Your task to perform on an android device: Install the Pandora app Image 0: 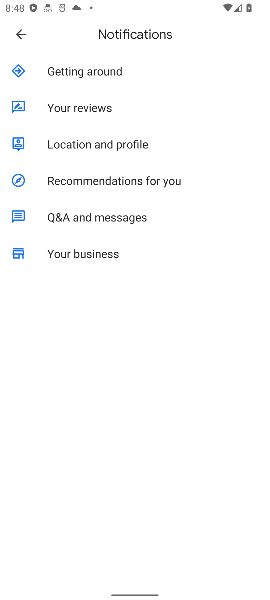
Step 0: press home button
Your task to perform on an android device: Install the Pandora app Image 1: 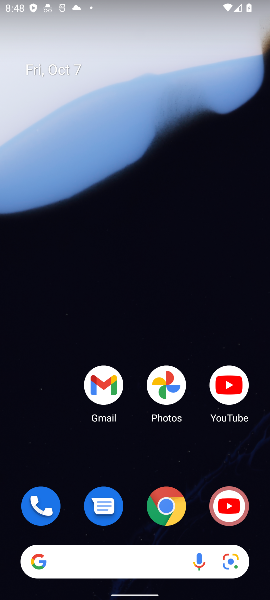
Step 1: drag from (137, 558) to (219, 58)
Your task to perform on an android device: Install the Pandora app Image 2: 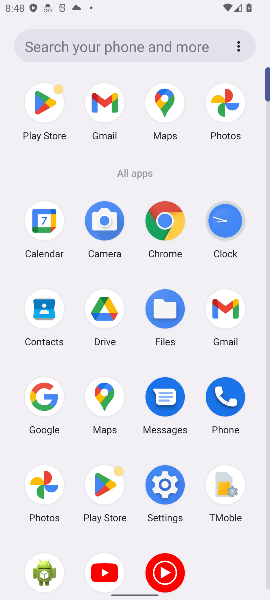
Step 2: click (42, 108)
Your task to perform on an android device: Install the Pandora app Image 3: 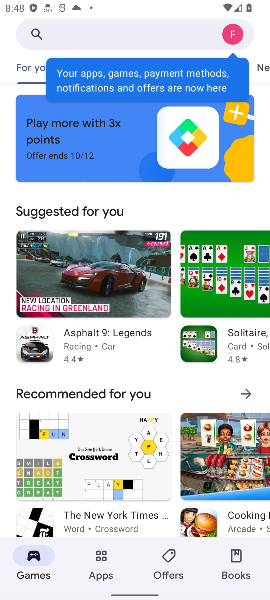
Step 3: click (133, 42)
Your task to perform on an android device: Install the Pandora app Image 4: 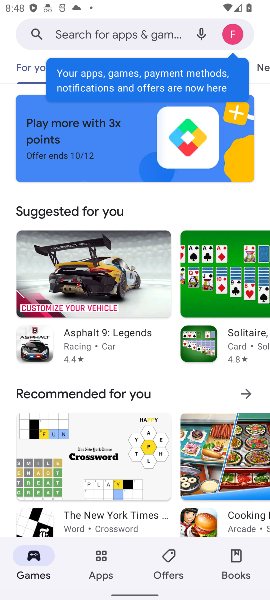
Step 4: click (133, 34)
Your task to perform on an android device: Install the Pandora app Image 5: 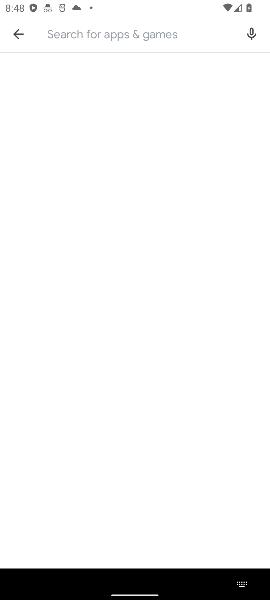
Step 5: type "Pandora app"
Your task to perform on an android device: Install the Pandora app Image 6: 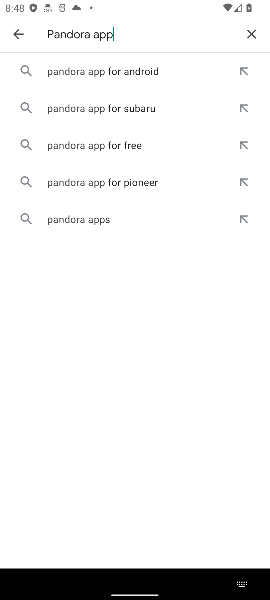
Step 6: click (90, 151)
Your task to perform on an android device: Install the Pandora app Image 7: 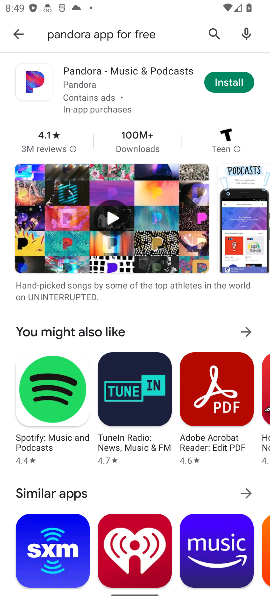
Step 7: click (215, 77)
Your task to perform on an android device: Install the Pandora app Image 8: 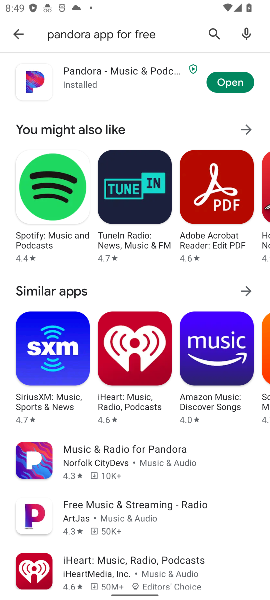
Step 8: task complete